Your task to perform on an android device: Open the map Image 0: 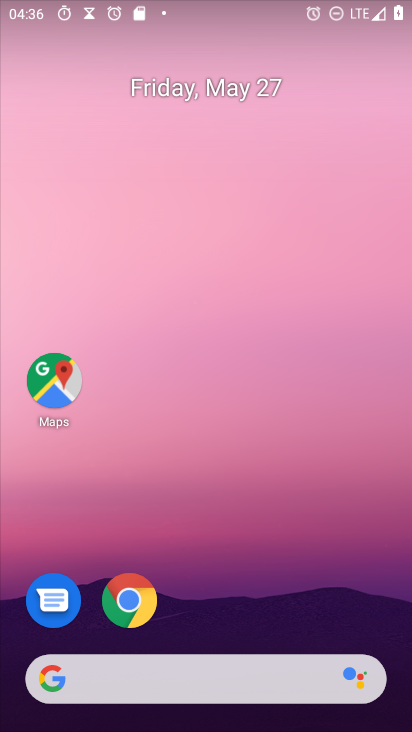
Step 0: drag from (220, 725) to (224, 141)
Your task to perform on an android device: Open the map Image 1: 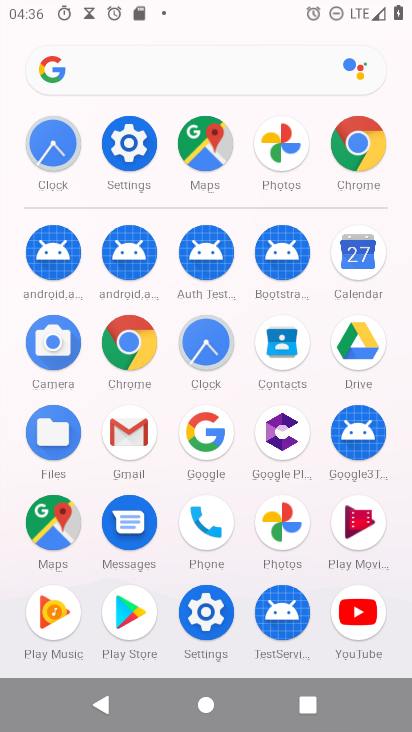
Step 1: click (56, 521)
Your task to perform on an android device: Open the map Image 2: 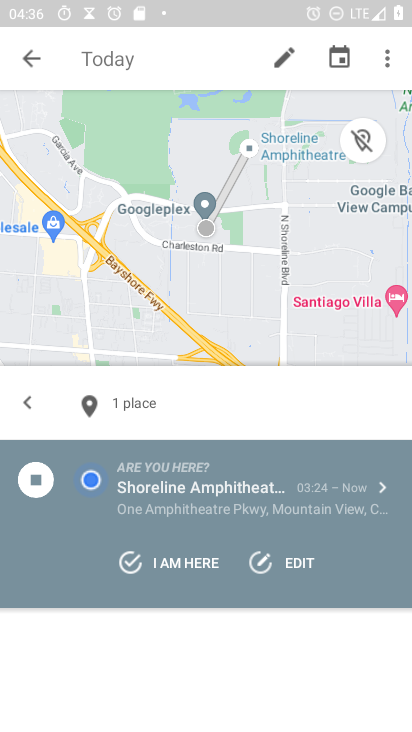
Step 2: click (36, 53)
Your task to perform on an android device: Open the map Image 3: 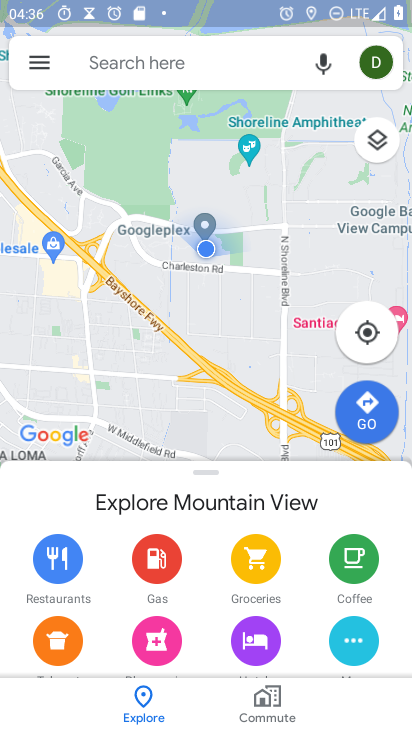
Step 3: task complete